Your task to perform on an android device: Search for vegetarian restaurants on Maps Image 0: 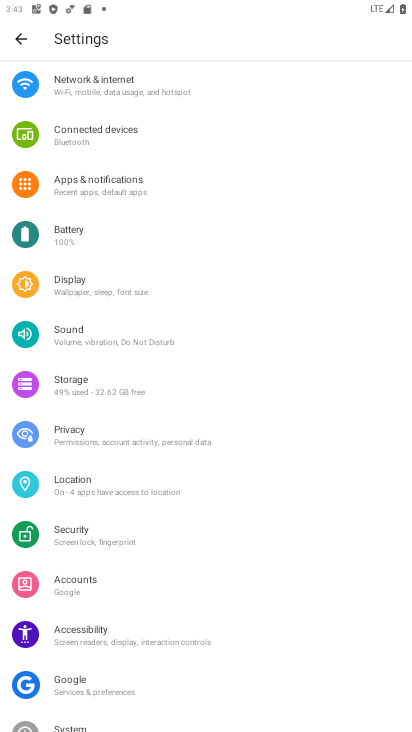
Step 0: press home button
Your task to perform on an android device: Search for vegetarian restaurants on Maps Image 1: 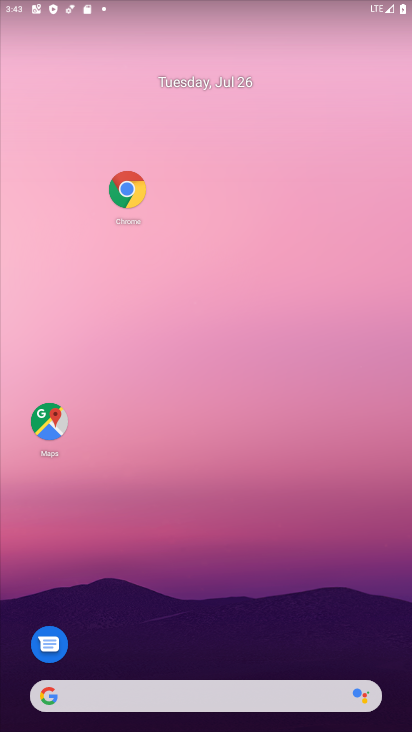
Step 1: drag from (125, 679) to (168, 231)
Your task to perform on an android device: Search for vegetarian restaurants on Maps Image 2: 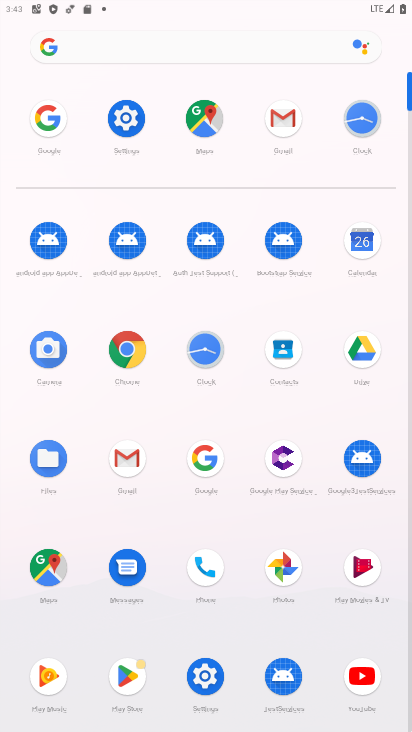
Step 2: click (46, 569)
Your task to perform on an android device: Search for vegetarian restaurants on Maps Image 3: 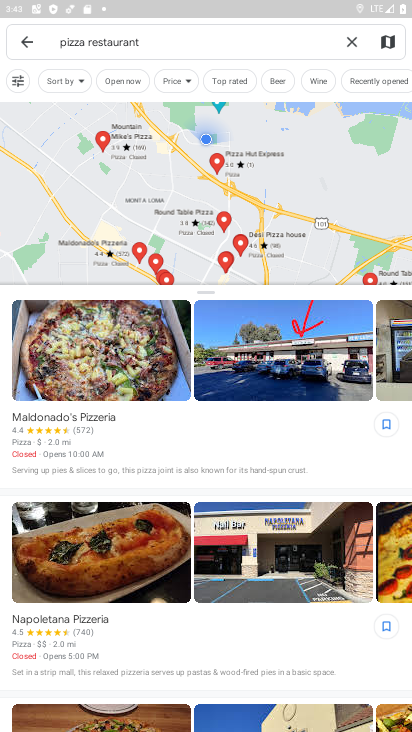
Step 3: click (347, 36)
Your task to perform on an android device: Search for vegetarian restaurants on Maps Image 4: 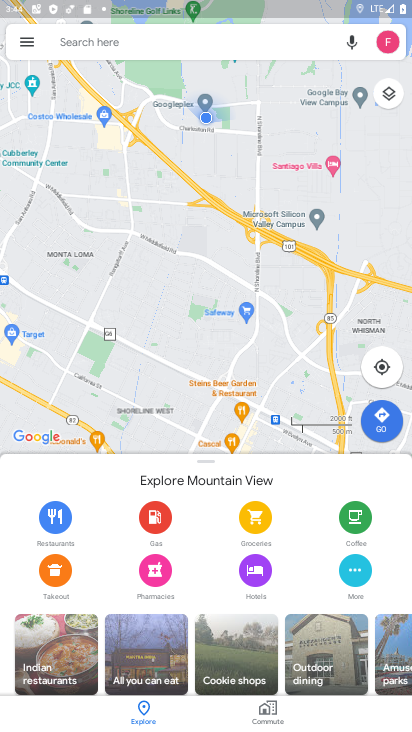
Step 4: click (147, 39)
Your task to perform on an android device: Search for vegetarian restaurants on Maps Image 5: 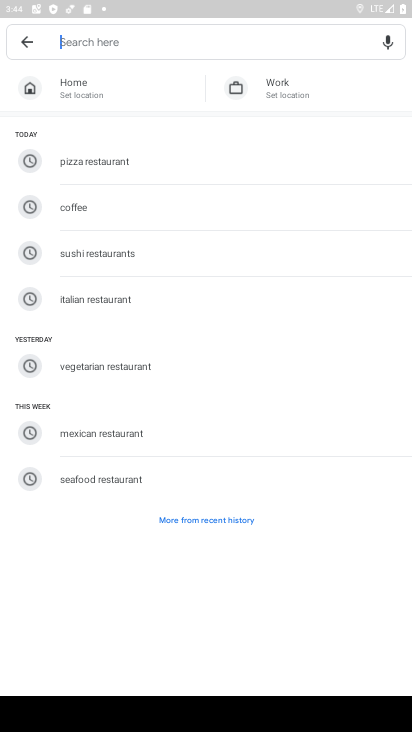
Step 5: click (137, 354)
Your task to perform on an android device: Search for vegetarian restaurants on Maps Image 6: 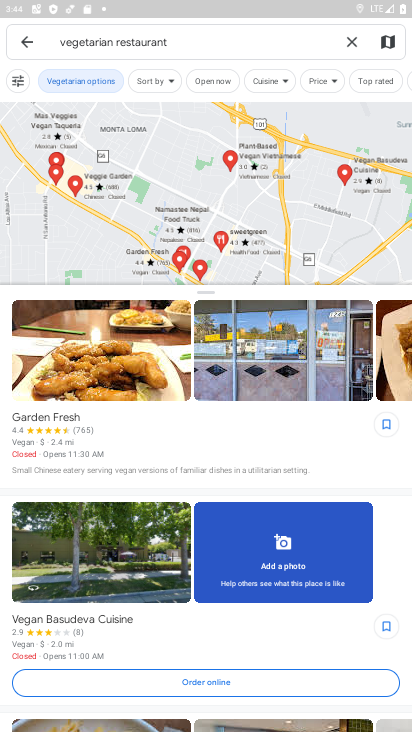
Step 6: task complete